Your task to perform on an android device: all mails in gmail Image 0: 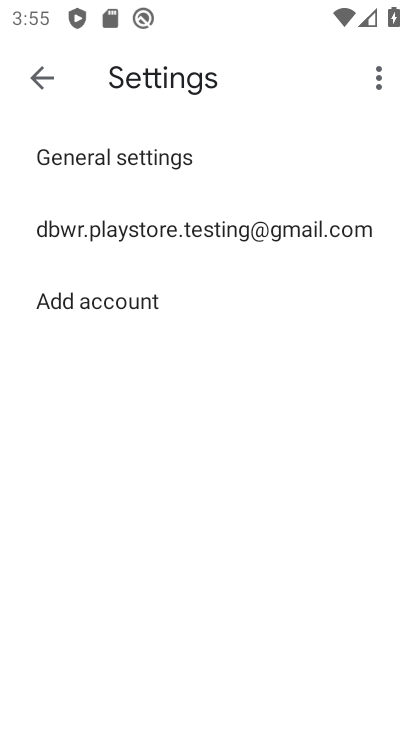
Step 0: press home button
Your task to perform on an android device: all mails in gmail Image 1: 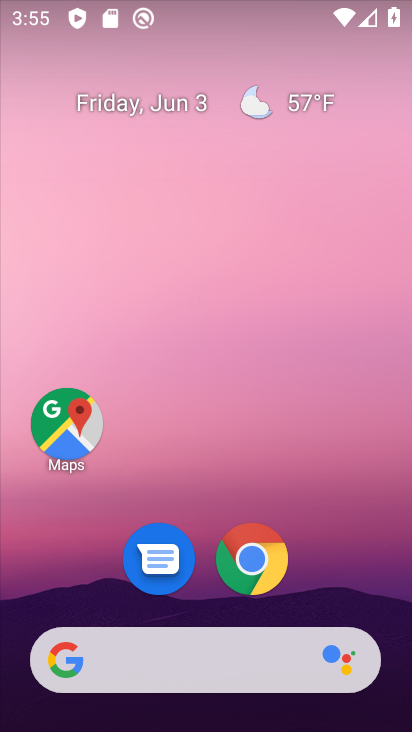
Step 1: drag from (340, 578) to (345, 114)
Your task to perform on an android device: all mails in gmail Image 2: 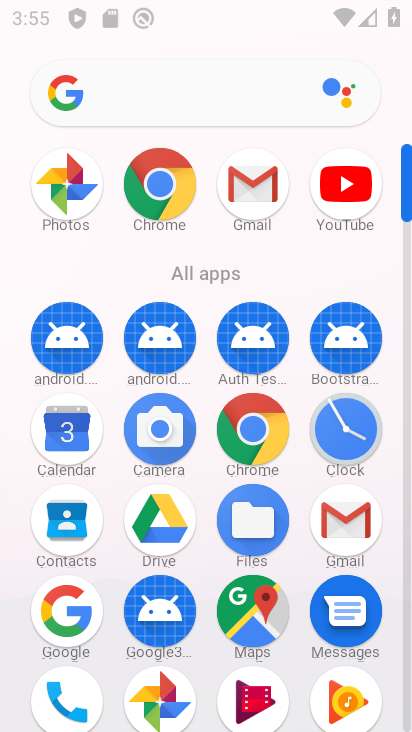
Step 2: click (349, 521)
Your task to perform on an android device: all mails in gmail Image 3: 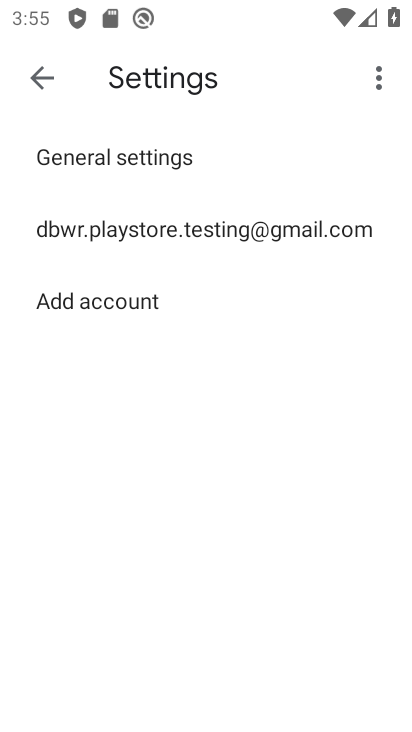
Step 3: click (40, 73)
Your task to perform on an android device: all mails in gmail Image 4: 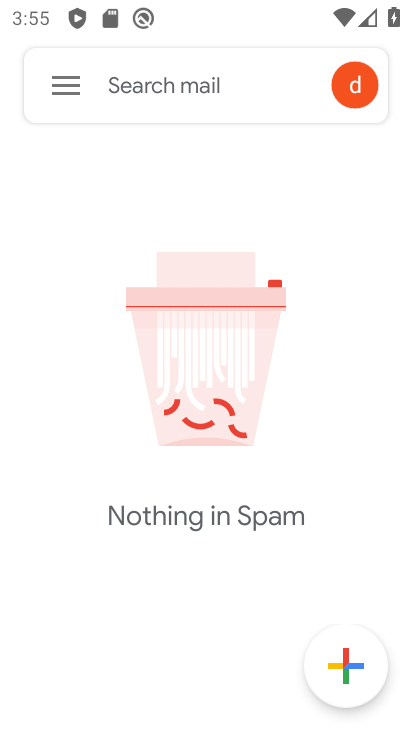
Step 4: click (58, 82)
Your task to perform on an android device: all mails in gmail Image 5: 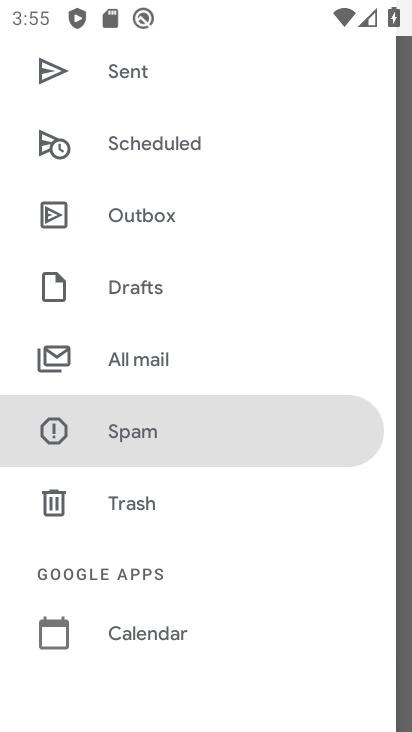
Step 5: click (148, 350)
Your task to perform on an android device: all mails in gmail Image 6: 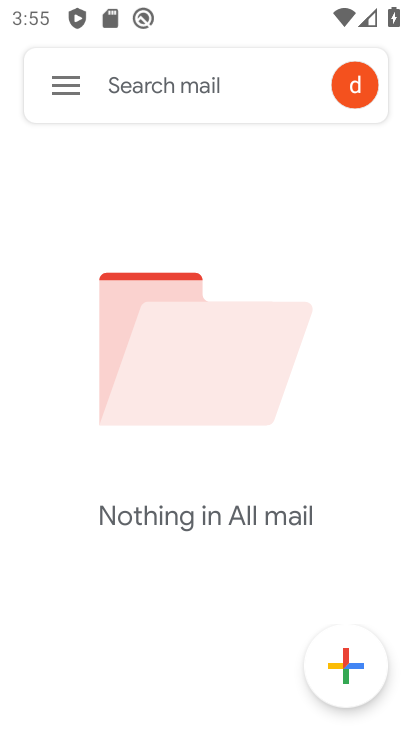
Step 6: task complete